Your task to perform on an android device: Search for the best rated book on Goodreads. Image 0: 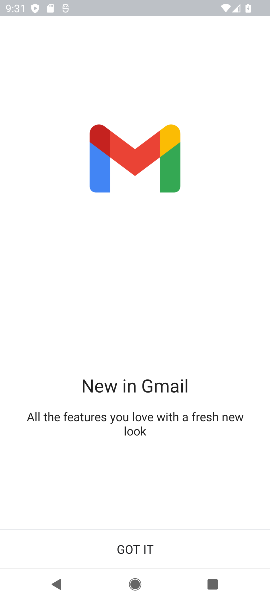
Step 0: press home button
Your task to perform on an android device: Search for the best rated book on Goodreads. Image 1: 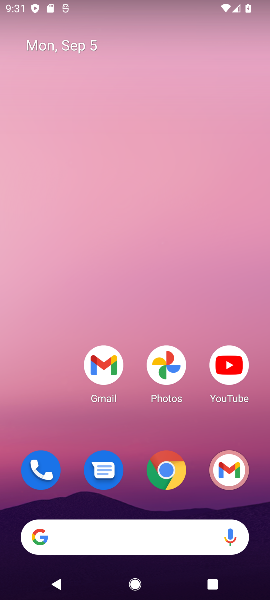
Step 1: click (133, 537)
Your task to perform on an android device: Search for the best rated book on Goodreads. Image 2: 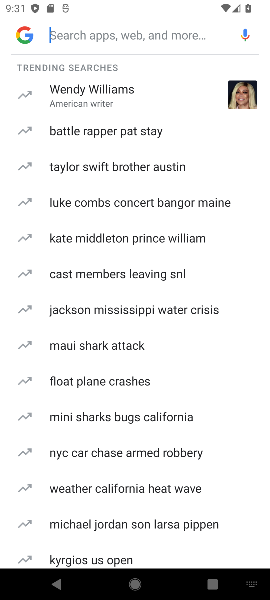
Step 2: type "goodreads"
Your task to perform on an android device: Search for the best rated book on Goodreads. Image 3: 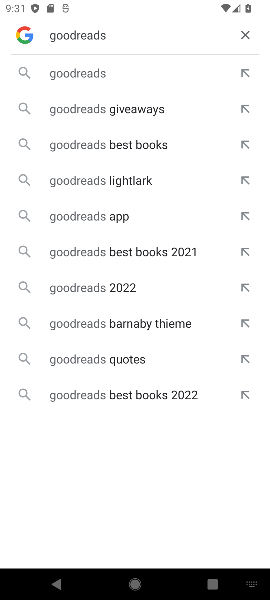
Step 3: click (93, 72)
Your task to perform on an android device: Search for the best rated book on Goodreads. Image 4: 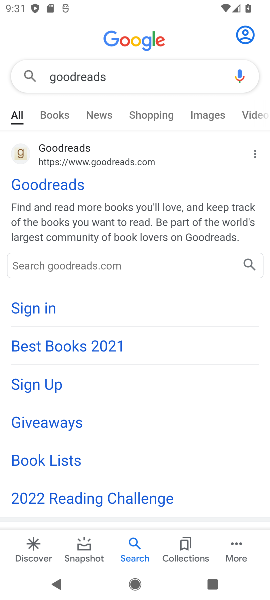
Step 4: click (54, 184)
Your task to perform on an android device: Search for the best rated book on Goodreads. Image 5: 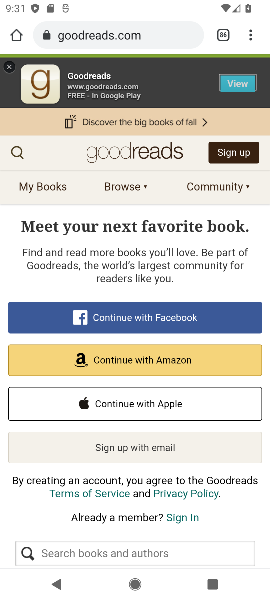
Step 5: click (14, 147)
Your task to perform on an android device: Search for the best rated book on Goodreads. Image 6: 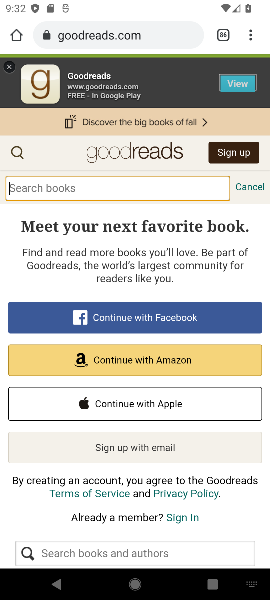
Step 6: type "best rated book"
Your task to perform on an android device: Search for the best rated book on Goodreads. Image 7: 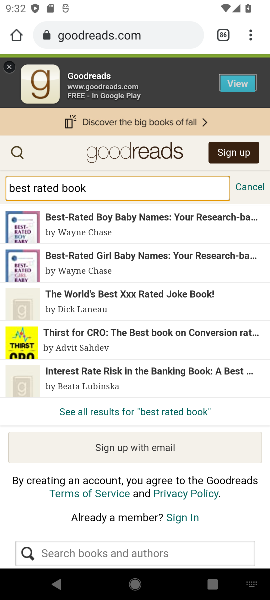
Step 7: click (148, 410)
Your task to perform on an android device: Search for the best rated book on Goodreads. Image 8: 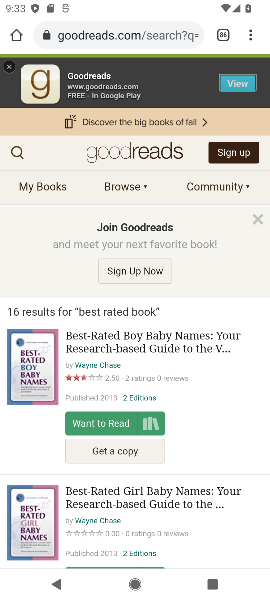
Step 8: task complete